Your task to perform on an android device: toggle notification dots Image 0: 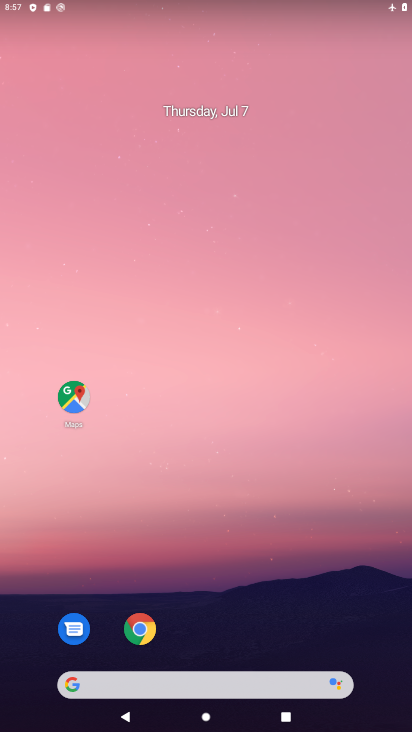
Step 0: drag from (283, 519) to (262, 202)
Your task to perform on an android device: toggle notification dots Image 1: 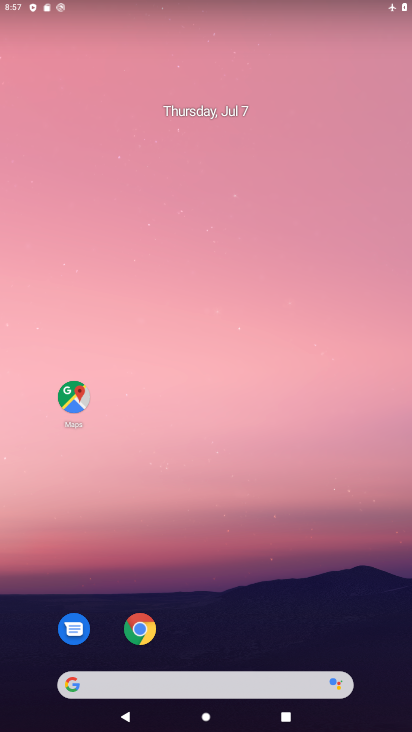
Step 1: drag from (215, 585) to (232, 218)
Your task to perform on an android device: toggle notification dots Image 2: 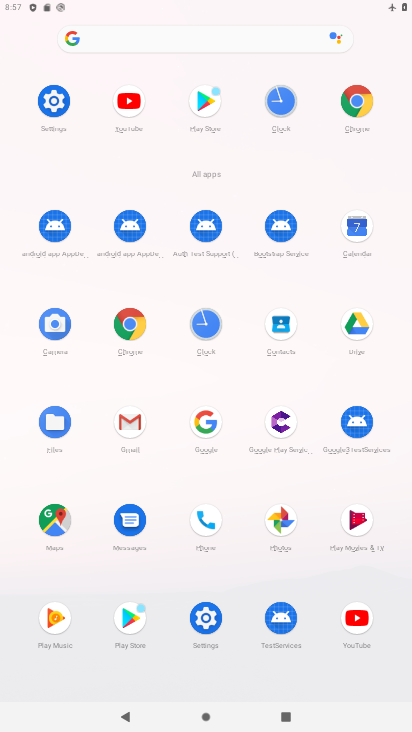
Step 2: click (49, 97)
Your task to perform on an android device: toggle notification dots Image 3: 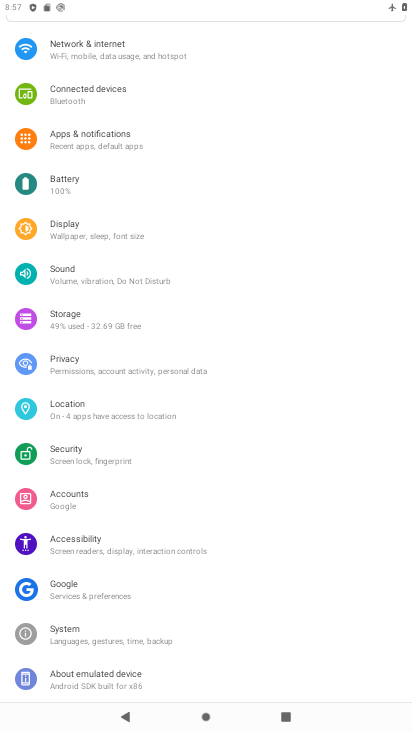
Step 3: click (101, 133)
Your task to perform on an android device: toggle notification dots Image 4: 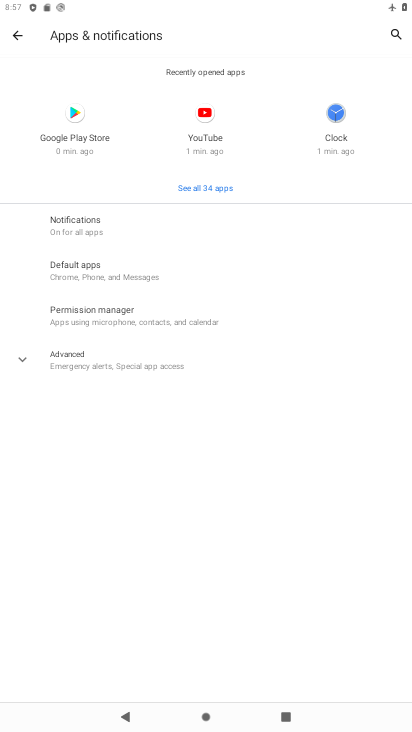
Step 4: click (68, 221)
Your task to perform on an android device: toggle notification dots Image 5: 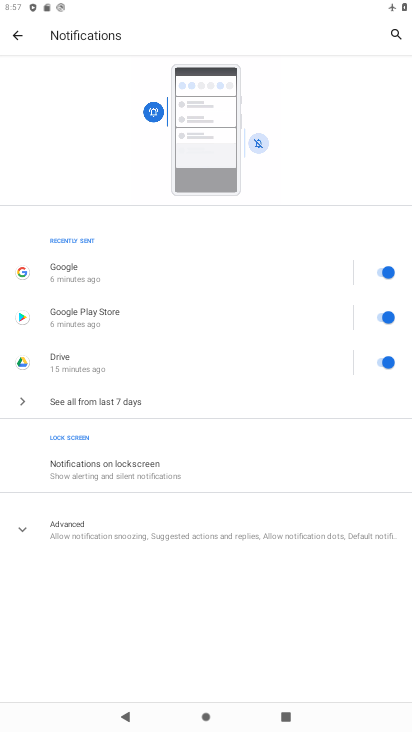
Step 5: click (63, 521)
Your task to perform on an android device: toggle notification dots Image 6: 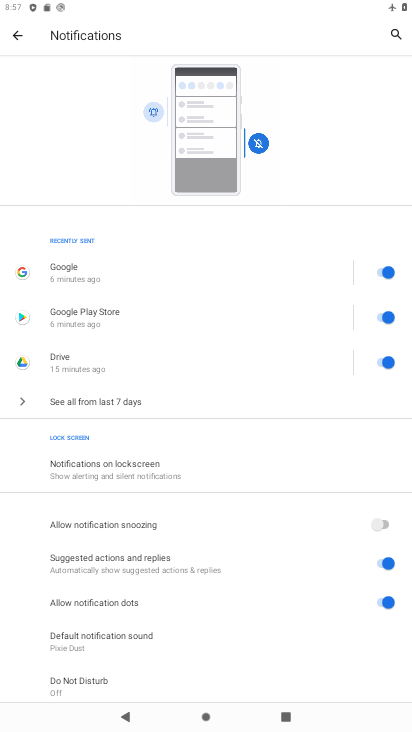
Step 6: click (389, 603)
Your task to perform on an android device: toggle notification dots Image 7: 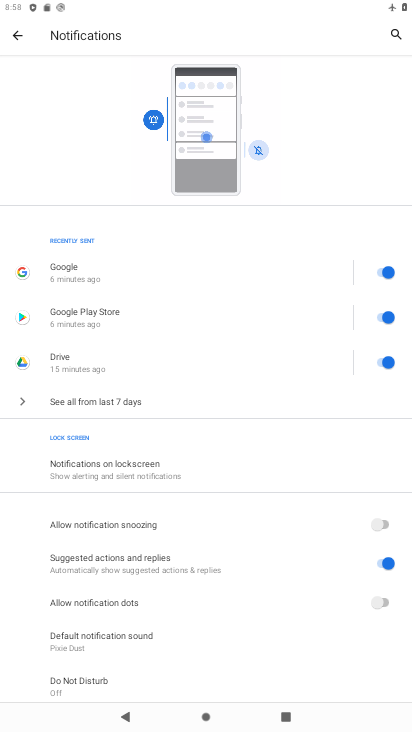
Step 7: task complete